Your task to perform on an android device: turn on priority inbox in the gmail app Image 0: 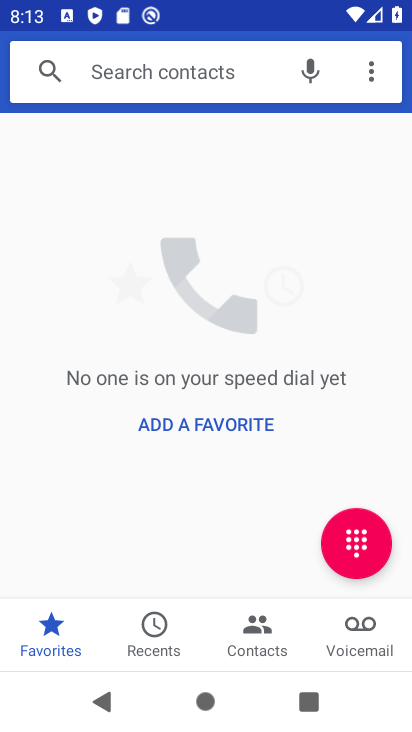
Step 0: press home button
Your task to perform on an android device: turn on priority inbox in the gmail app Image 1: 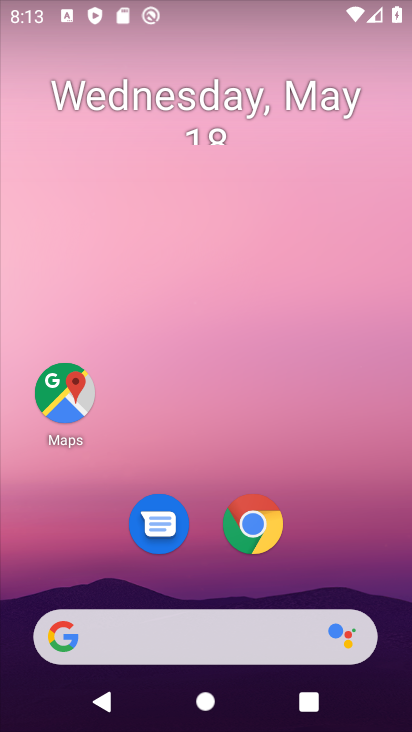
Step 1: drag from (332, 501) to (291, 41)
Your task to perform on an android device: turn on priority inbox in the gmail app Image 2: 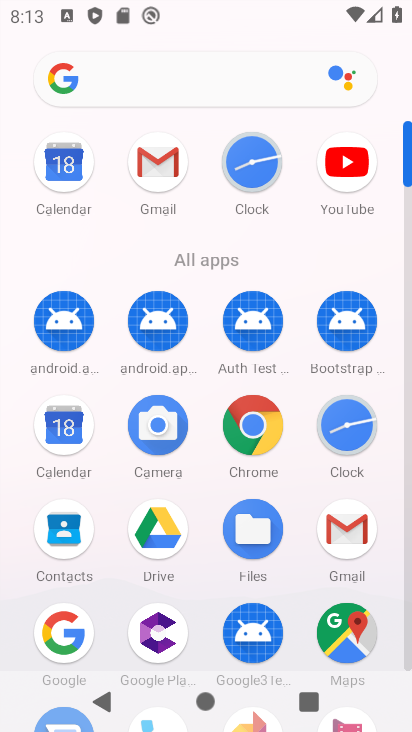
Step 2: drag from (200, 451) to (225, 129)
Your task to perform on an android device: turn on priority inbox in the gmail app Image 3: 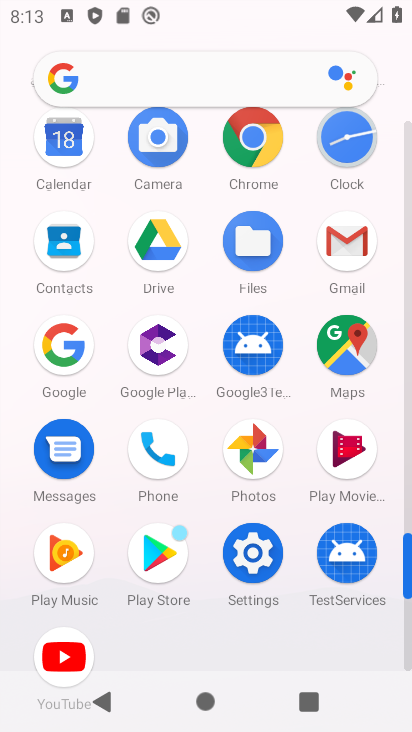
Step 3: click (256, 548)
Your task to perform on an android device: turn on priority inbox in the gmail app Image 4: 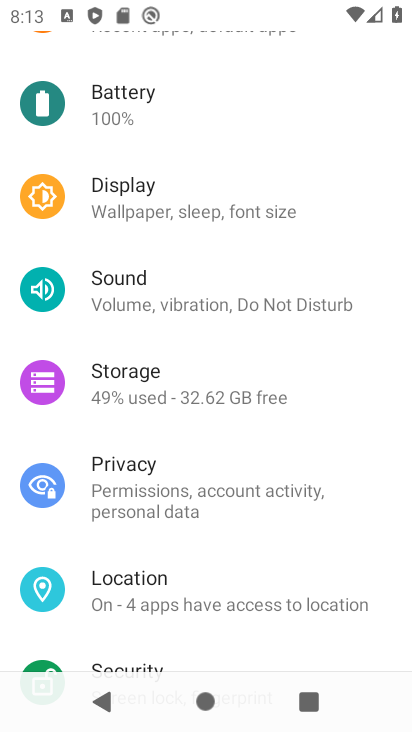
Step 4: drag from (221, 517) to (232, 205)
Your task to perform on an android device: turn on priority inbox in the gmail app Image 5: 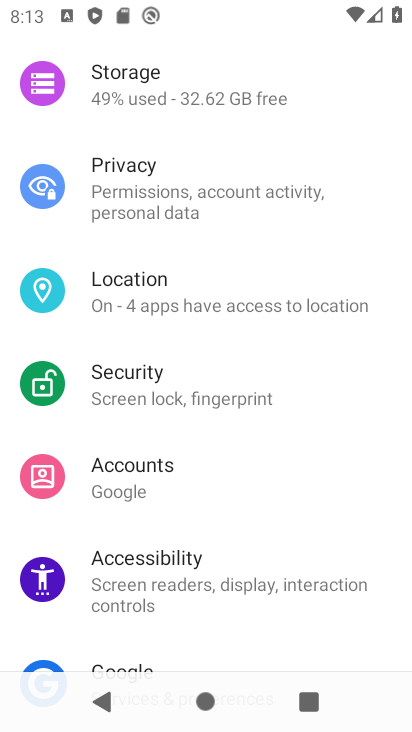
Step 5: press home button
Your task to perform on an android device: turn on priority inbox in the gmail app Image 6: 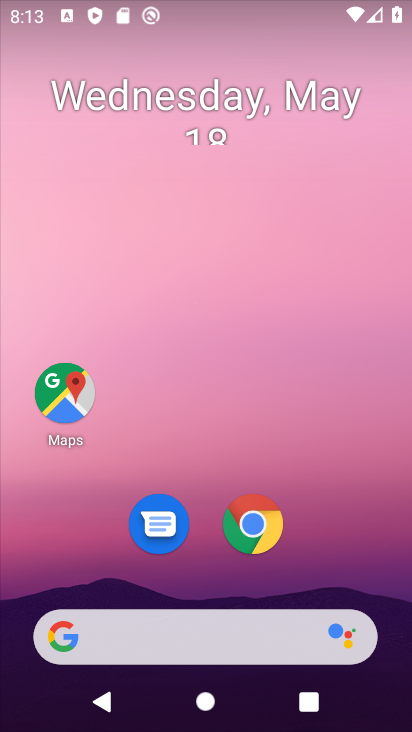
Step 6: drag from (253, 447) to (287, 58)
Your task to perform on an android device: turn on priority inbox in the gmail app Image 7: 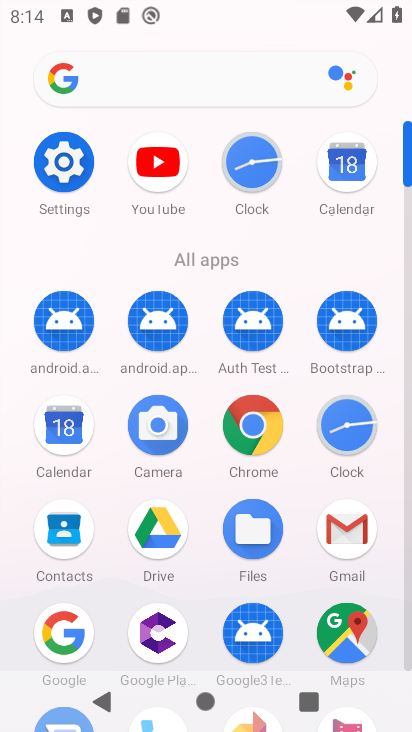
Step 7: click (340, 524)
Your task to perform on an android device: turn on priority inbox in the gmail app Image 8: 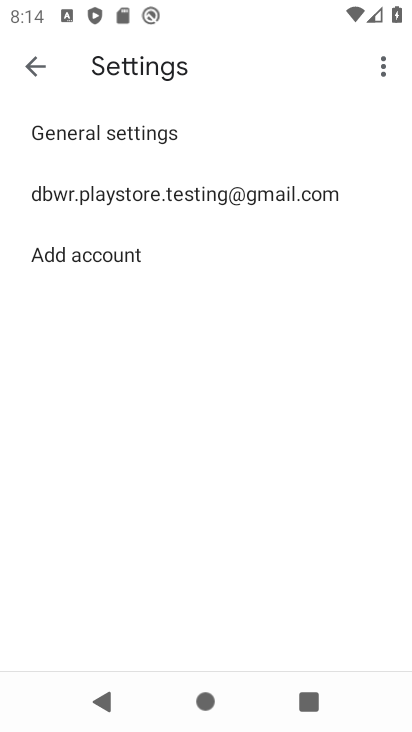
Step 8: click (41, 64)
Your task to perform on an android device: turn on priority inbox in the gmail app Image 9: 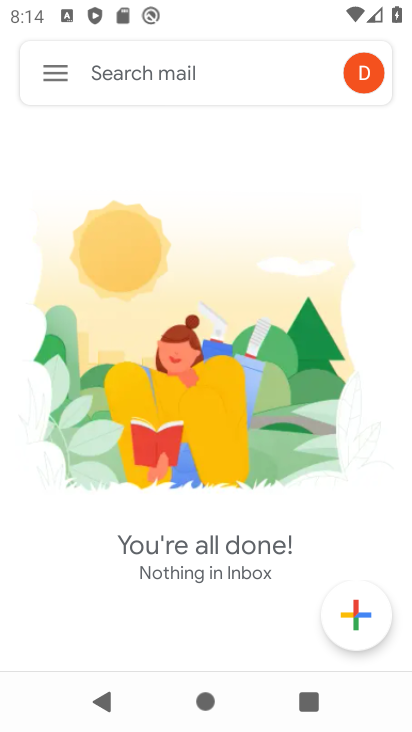
Step 9: click (55, 70)
Your task to perform on an android device: turn on priority inbox in the gmail app Image 10: 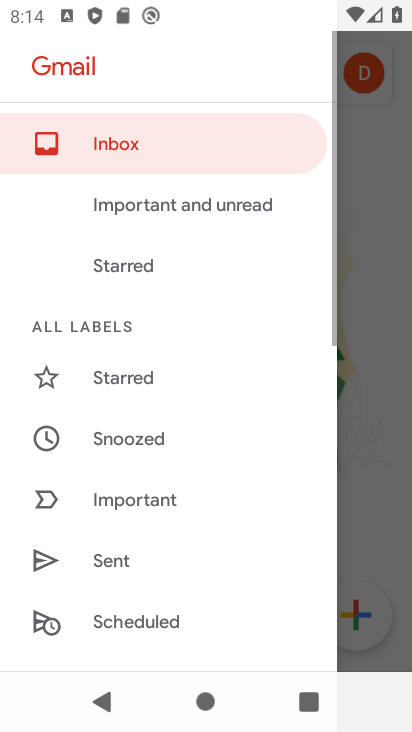
Step 10: drag from (183, 512) to (268, 116)
Your task to perform on an android device: turn on priority inbox in the gmail app Image 11: 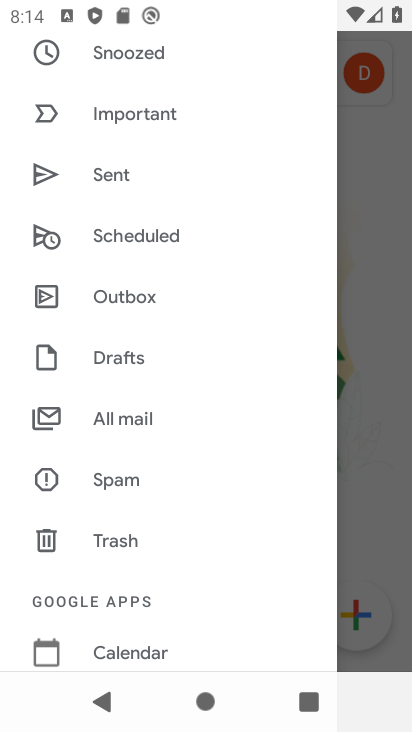
Step 11: drag from (177, 561) to (219, 161)
Your task to perform on an android device: turn on priority inbox in the gmail app Image 12: 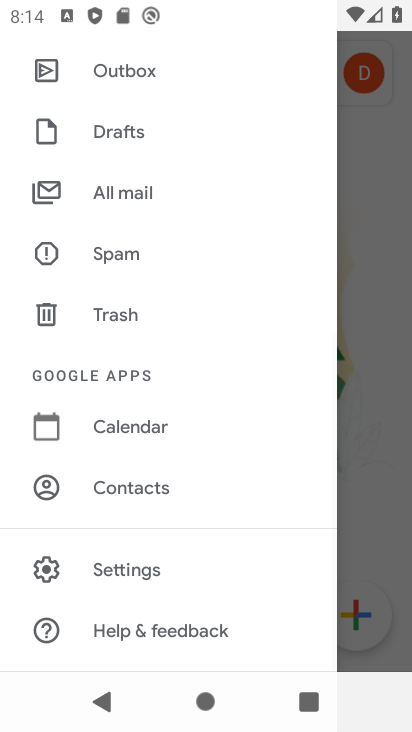
Step 12: click (146, 565)
Your task to perform on an android device: turn on priority inbox in the gmail app Image 13: 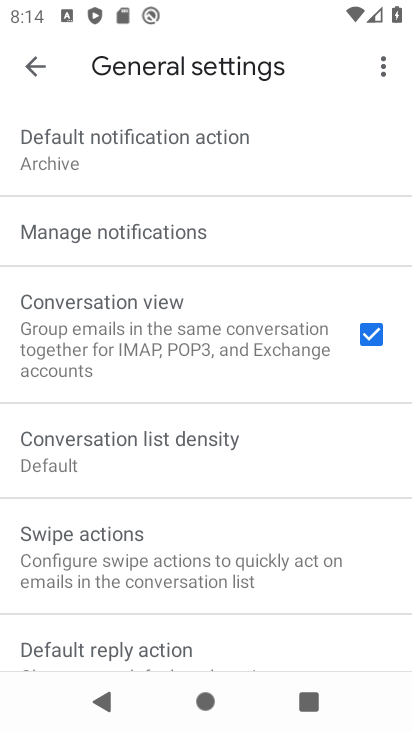
Step 13: click (37, 56)
Your task to perform on an android device: turn on priority inbox in the gmail app Image 14: 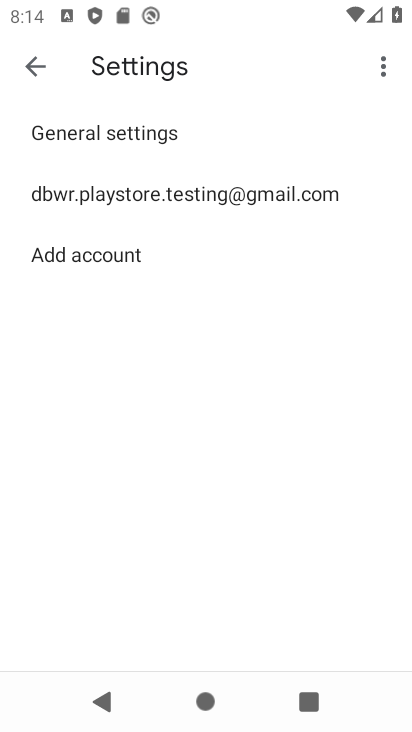
Step 14: click (142, 189)
Your task to perform on an android device: turn on priority inbox in the gmail app Image 15: 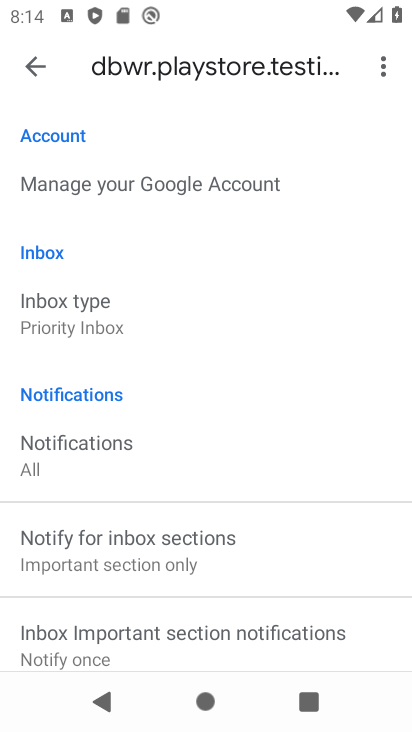
Step 15: task complete